Your task to perform on an android device: check out phone information Image 0: 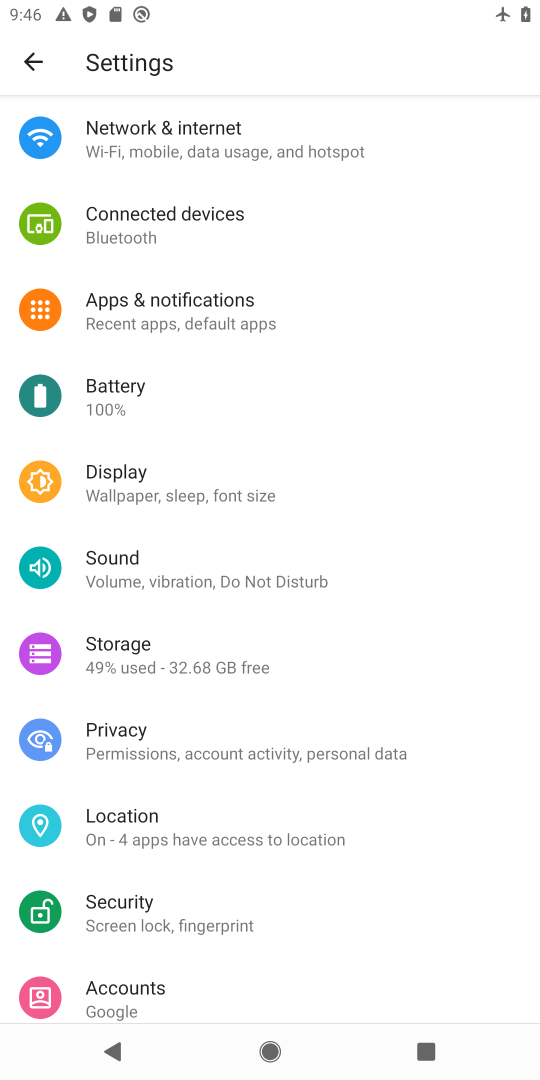
Step 0: drag from (200, 783) to (269, 243)
Your task to perform on an android device: check out phone information Image 1: 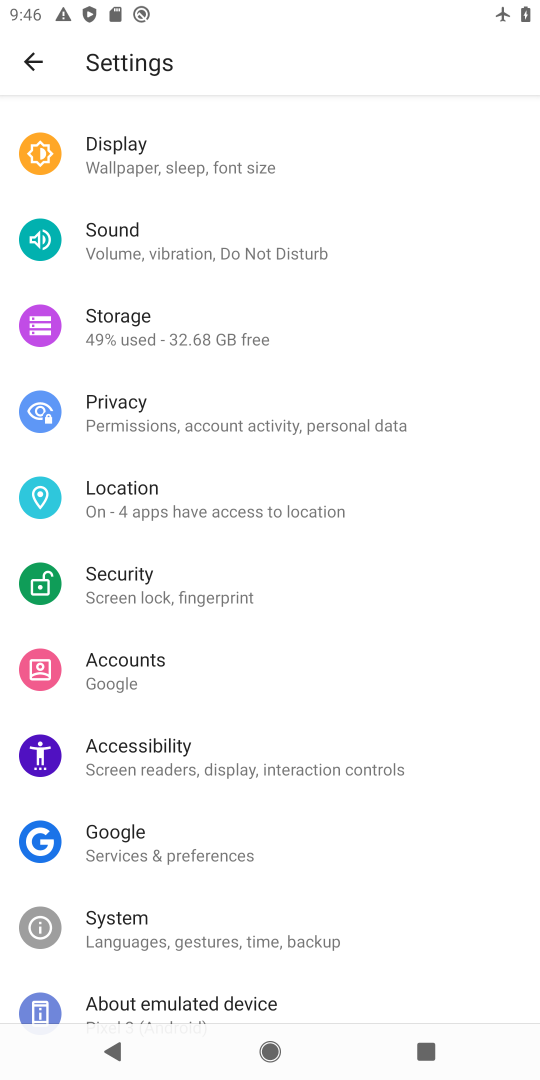
Step 1: drag from (213, 708) to (262, 262)
Your task to perform on an android device: check out phone information Image 2: 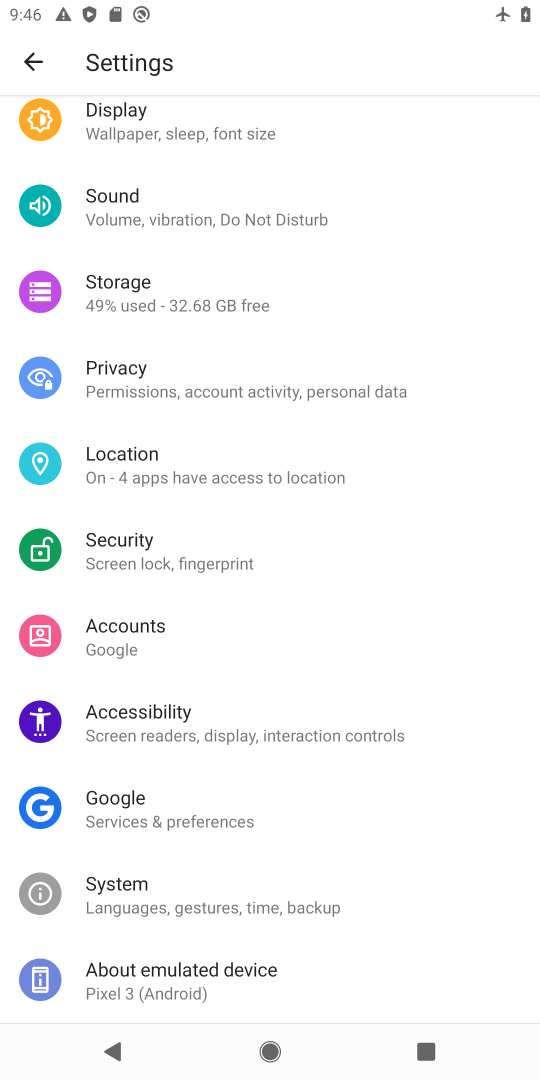
Step 2: click (163, 975)
Your task to perform on an android device: check out phone information Image 3: 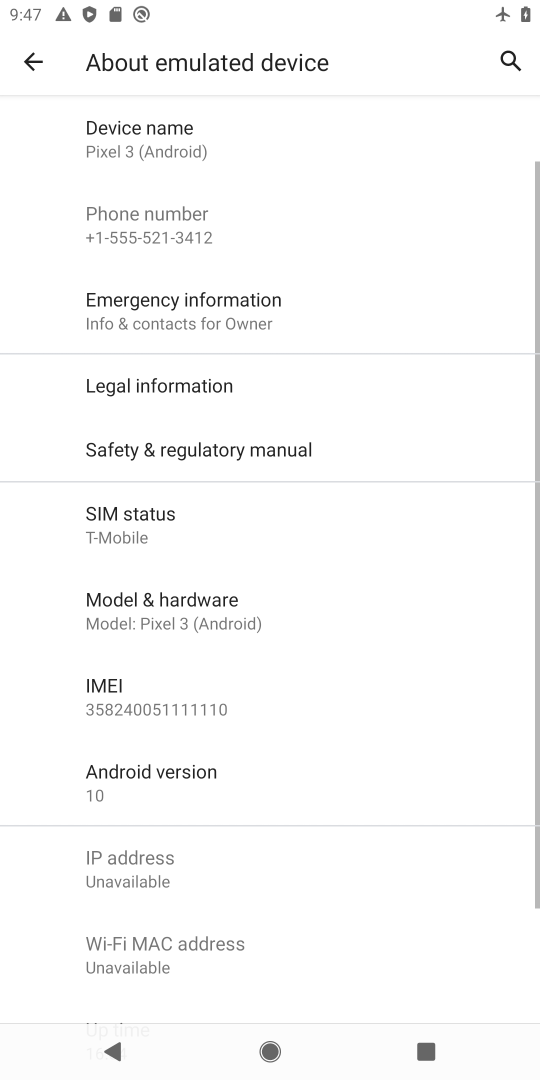
Step 3: drag from (158, 836) to (196, 388)
Your task to perform on an android device: check out phone information Image 4: 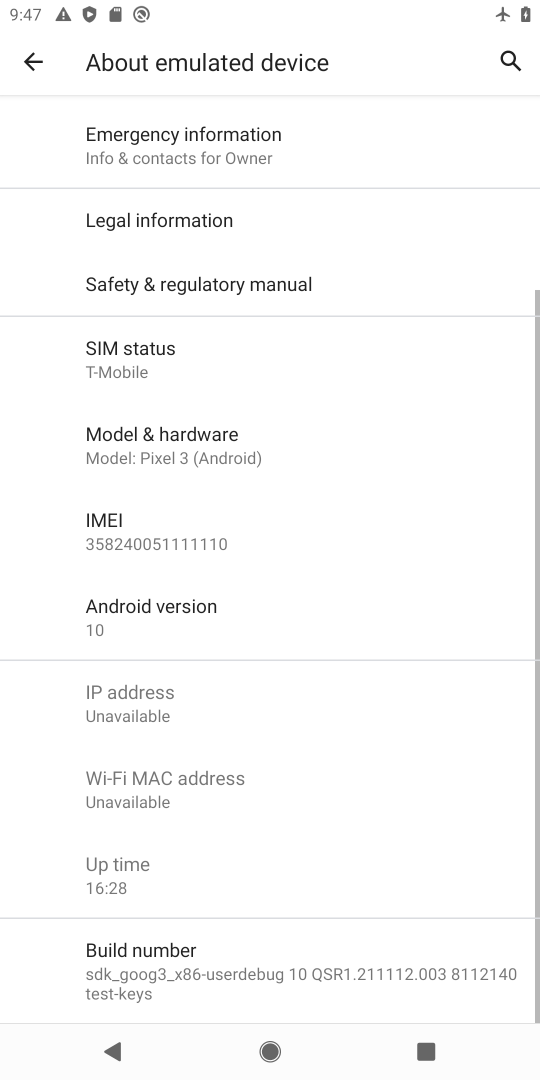
Step 4: click (236, 467)
Your task to perform on an android device: check out phone information Image 5: 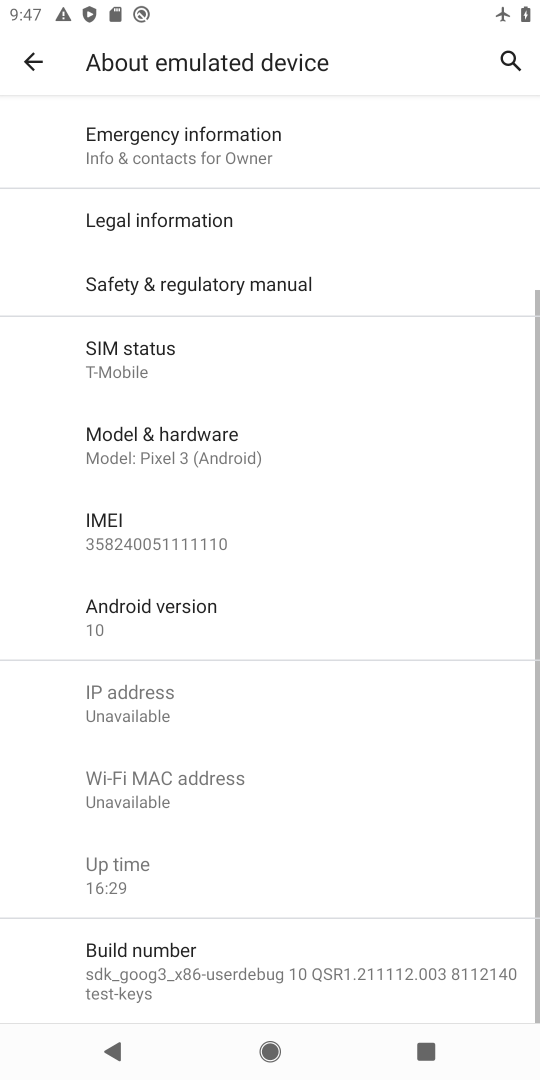
Step 5: task complete